Your task to perform on an android device: clear all cookies in the chrome app Image 0: 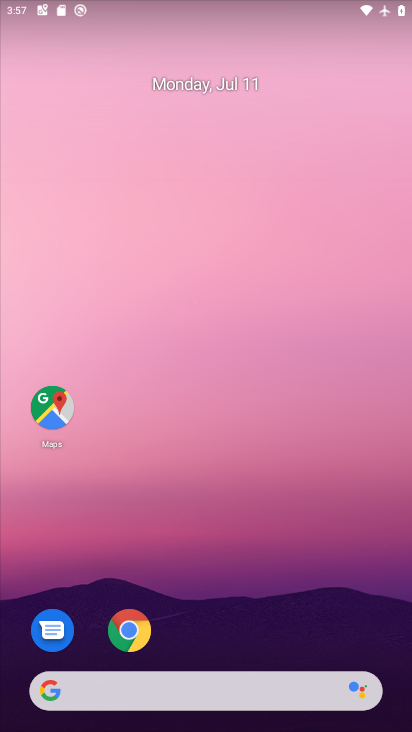
Step 0: click (133, 642)
Your task to perform on an android device: clear all cookies in the chrome app Image 1: 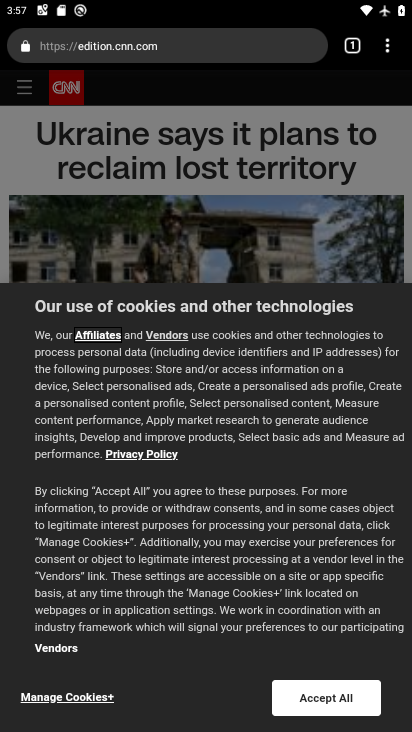
Step 1: click (394, 57)
Your task to perform on an android device: clear all cookies in the chrome app Image 2: 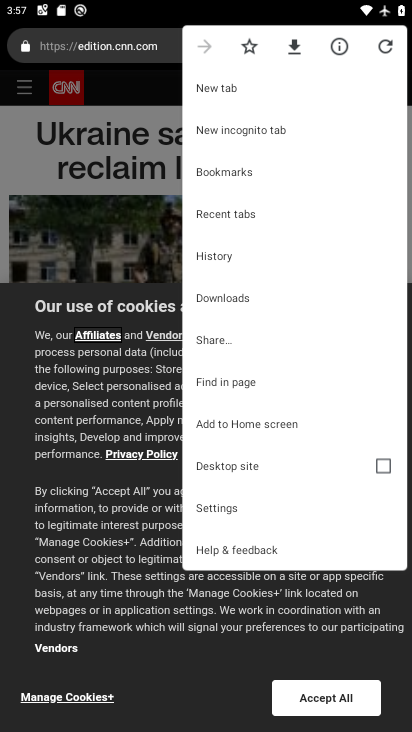
Step 2: click (230, 513)
Your task to perform on an android device: clear all cookies in the chrome app Image 3: 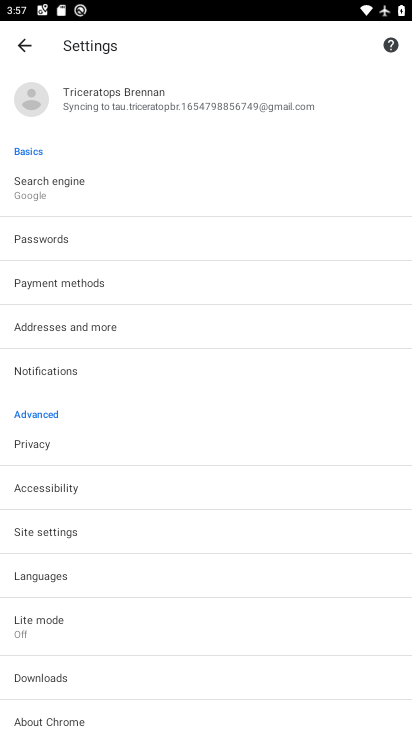
Step 3: click (13, 50)
Your task to perform on an android device: clear all cookies in the chrome app Image 4: 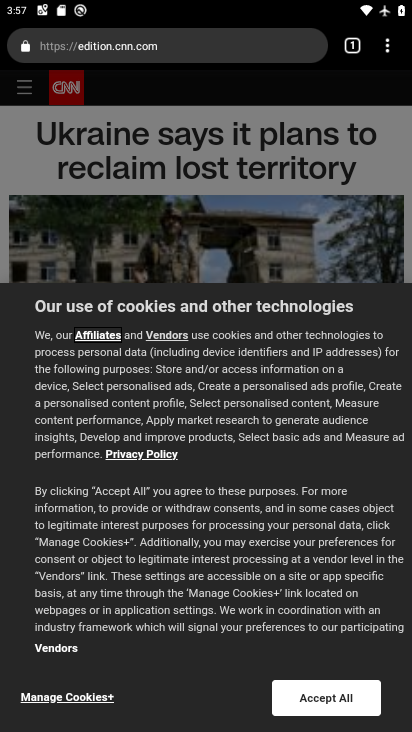
Step 4: click (384, 53)
Your task to perform on an android device: clear all cookies in the chrome app Image 5: 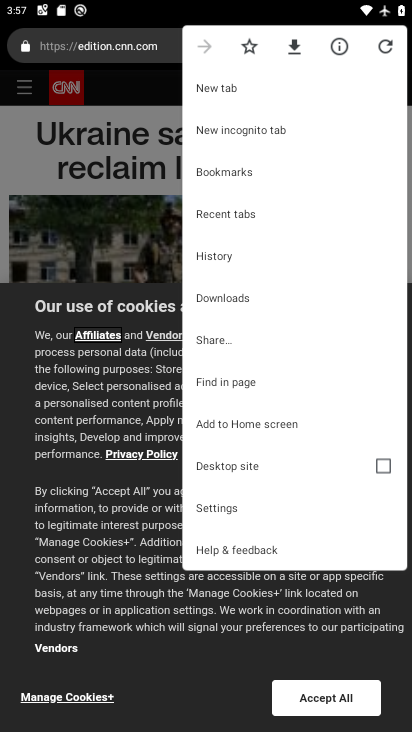
Step 5: click (232, 263)
Your task to perform on an android device: clear all cookies in the chrome app Image 6: 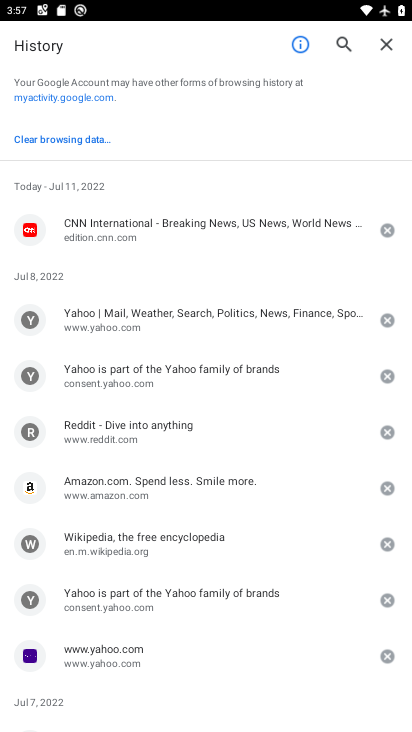
Step 6: click (69, 136)
Your task to perform on an android device: clear all cookies in the chrome app Image 7: 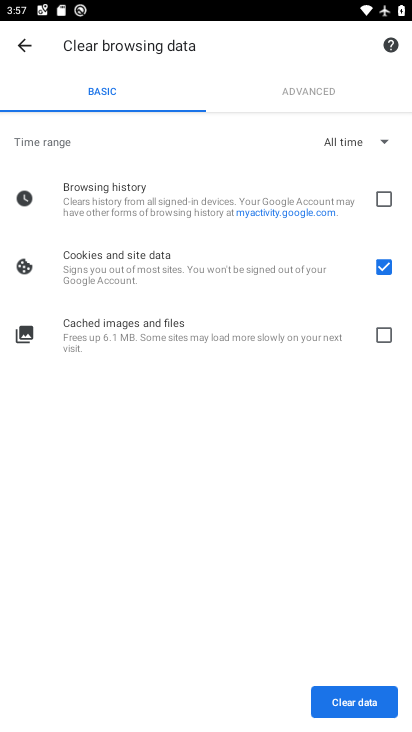
Step 7: click (370, 197)
Your task to perform on an android device: clear all cookies in the chrome app Image 8: 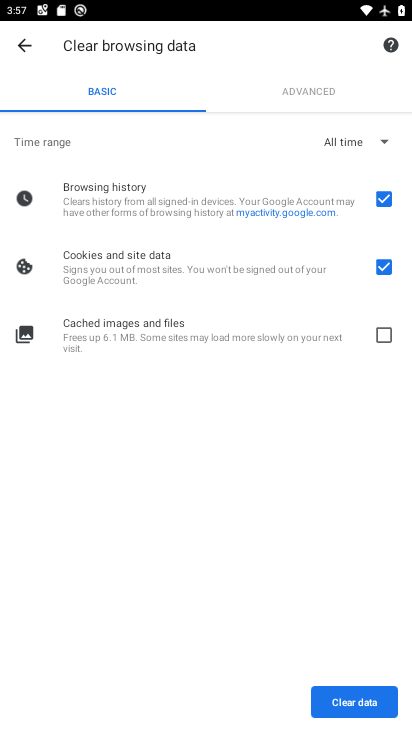
Step 8: click (377, 325)
Your task to perform on an android device: clear all cookies in the chrome app Image 9: 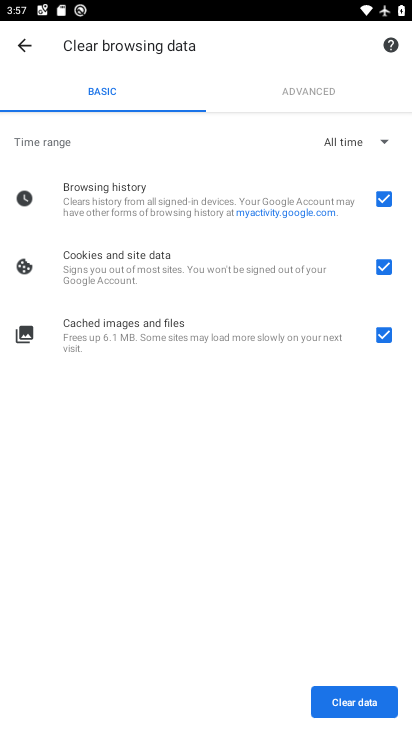
Step 9: click (369, 691)
Your task to perform on an android device: clear all cookies in the chrome app Image 10: 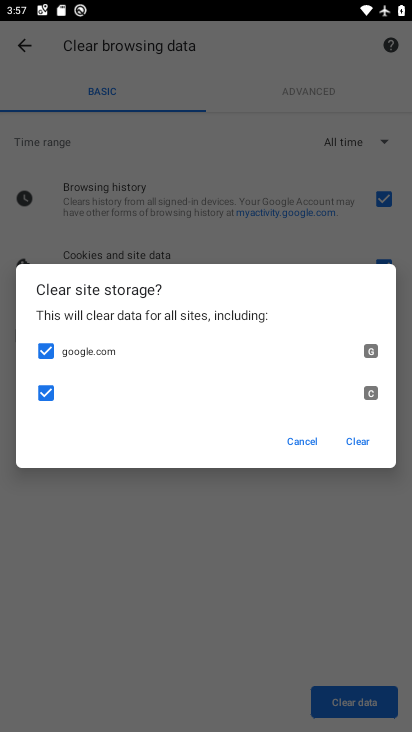
Step 10: click (348, 425)
Your task to perform on an android device: clear all cookies in the chrome app Image 11: 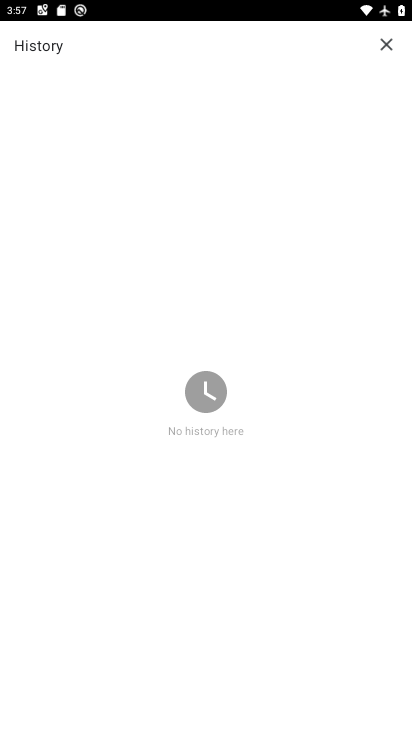
Step 11: task complete